Your task to perform on an android device: Go to Android settings Image 0: 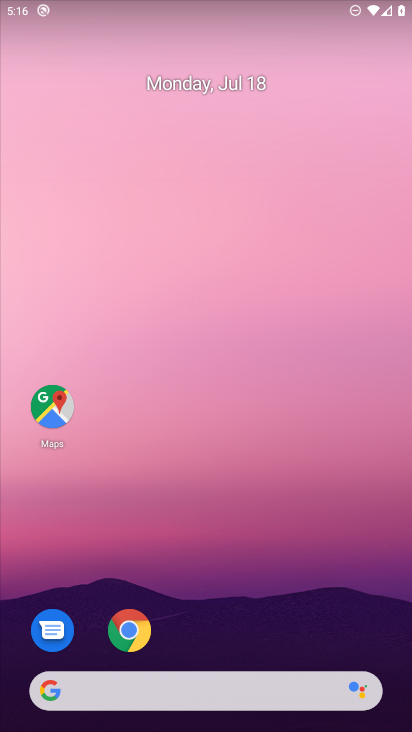
Step 0: press home button
Your task to perform on an android device: Go to Android settings Image 1: 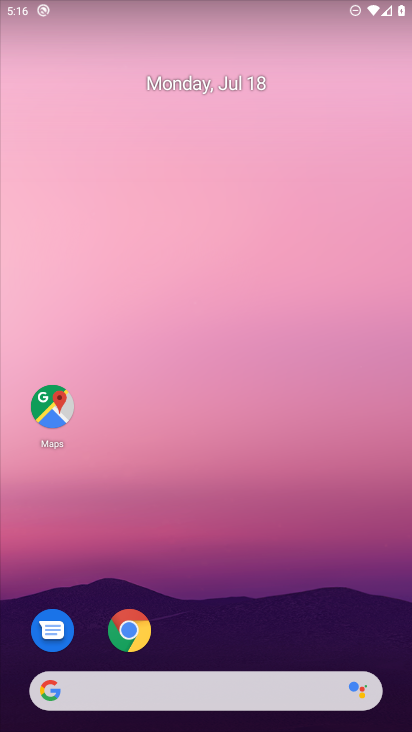
Step 1: drag from (229, 652) to (222, 201)
Your task to perform on an android device: Go to Android settings Image 2: 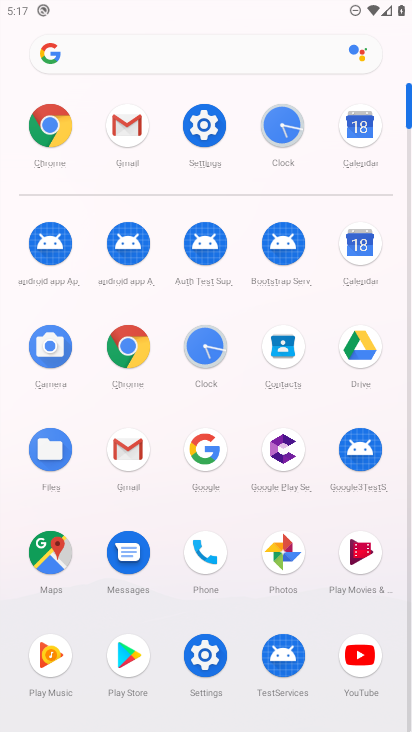
Step 2: click (199, 646)
Your task to perform on an android device: Go to Android settings Image 3: 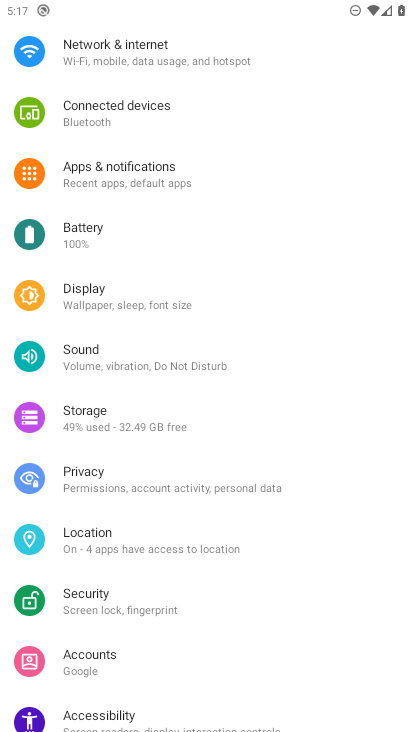
Step 3: drag from (183, 657) to (243, 312)
Your task to perform on an android device: Go to Android settings Image 4: 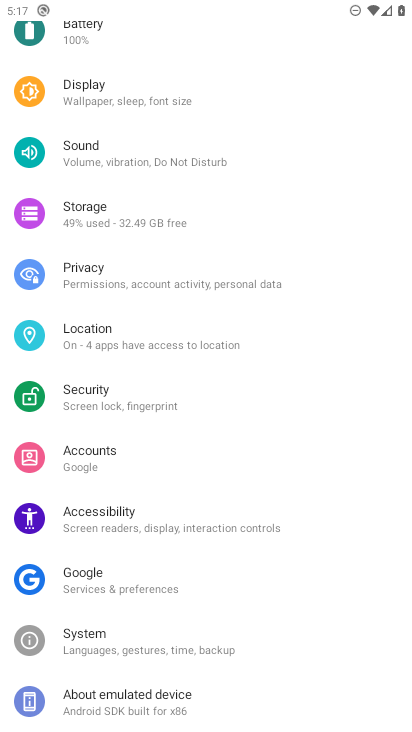
Step 4: click (188, 697)
Your task to perform on an android device: Go to Android settings Image 5: 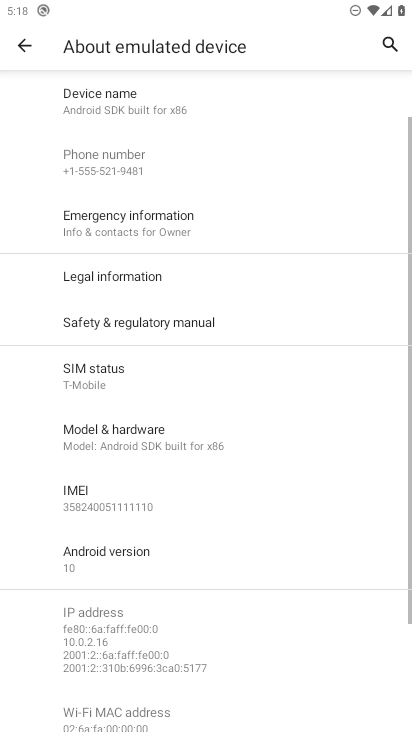
Step 5: click (142, 560)
Your task to perform on an android device: Go to Android settings Image 6: 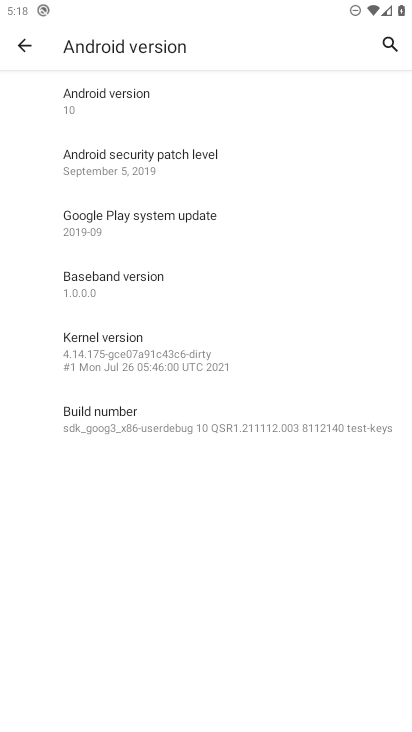
Step 6: task complete